Your task to perform on an android device: make emails show in primary in the gmail app Image 0: 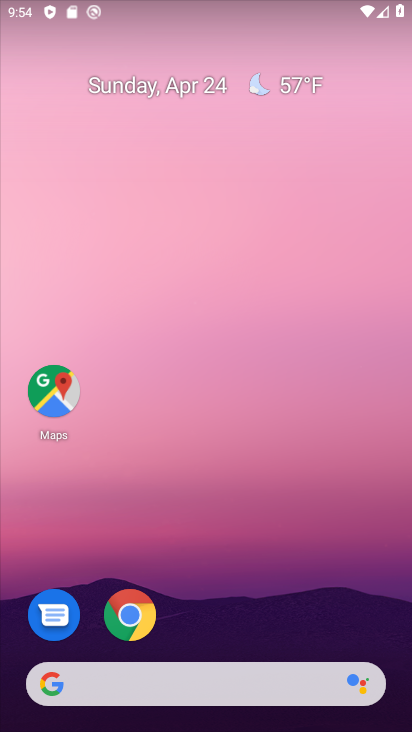
Step 0: drag from (350, 598) to (289, 134)
Your task to perform on an android device: make emails show in primary in the gmail app Image 1: 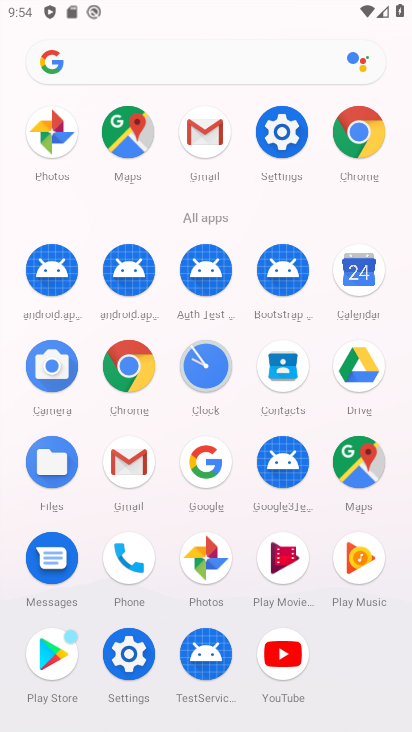
Step 1: click (128, 463)
Your task to perform on an android device: make emails show in primary in the gmail app Image 2: 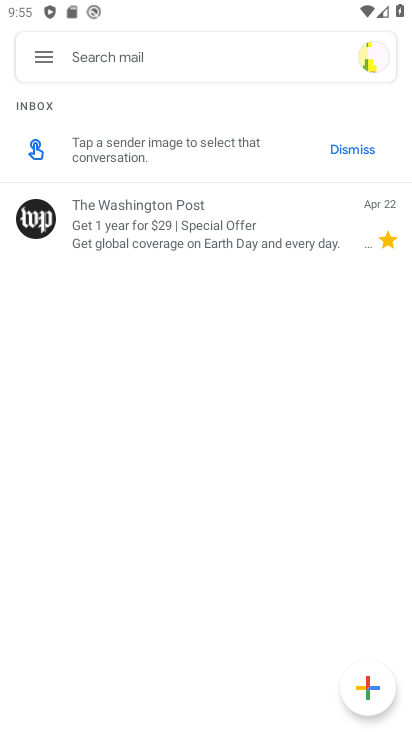
Step 2: click (43, 54)
Your task to perform on an android device: make emails show in primary in the gmail app Image 3: 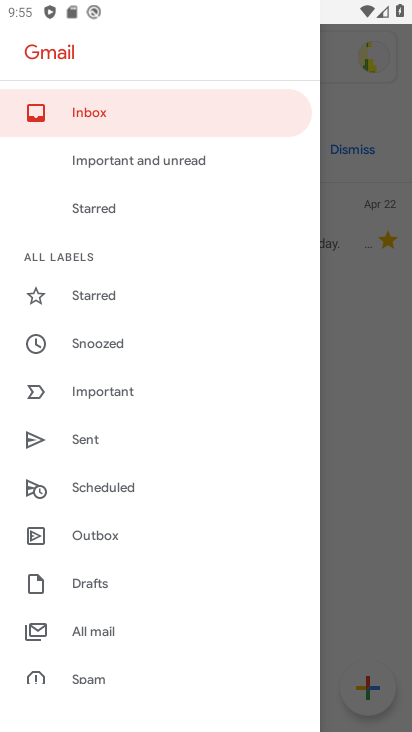
Step 3: drag from (204, 598) to (211, 264)
Your task to perform on an android device: make emails show in primary in the gmail app Image 4: 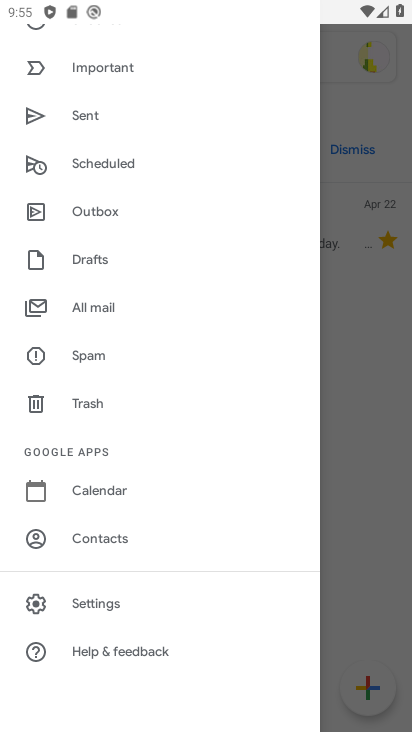
Step 4: click (93, 593)
Your task to perform on an android device: make emails show in primary in the gmail app Image 5: 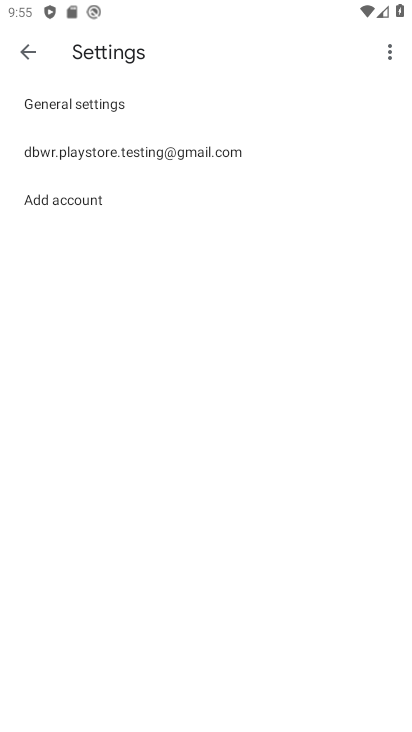
Step 5: click (131, 147)
Your task to perform on an android device: make emails show in primary in the gmail app Image 6: 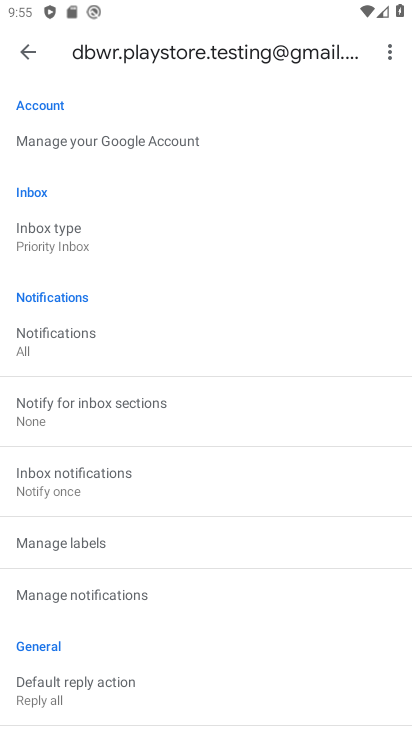
Step 6: click (56, 242)
Your task to perform on an android device: make emails show in primary in the gmail app Image 7: 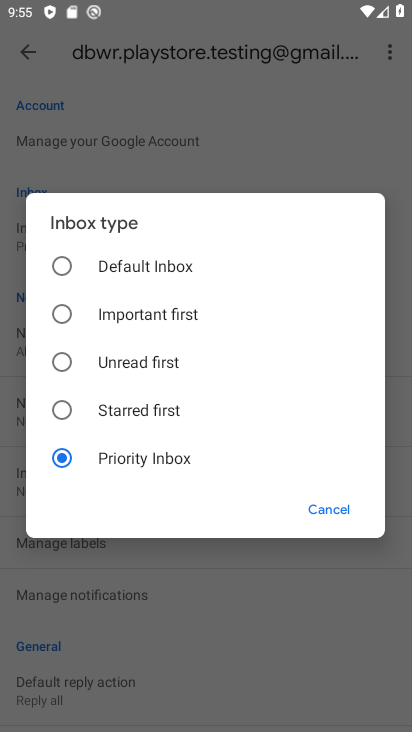
Step 7: click (60, 261)
Your task to perform on an android device: make emails show in primary in the gmail app Image 8: 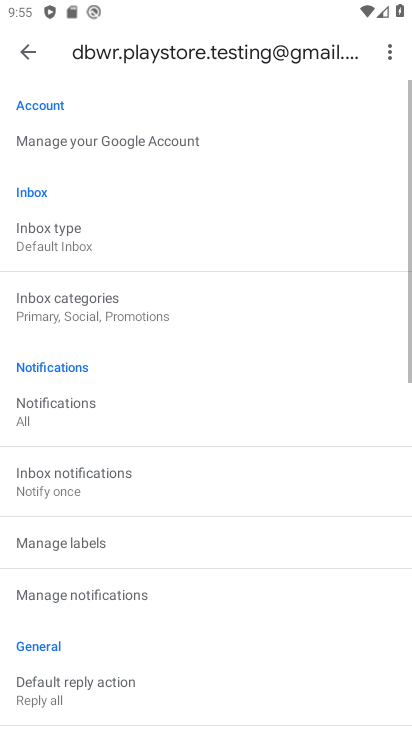
Step 8: click (59, 294)
Your task to perform on an android device: make emails show in primary in the gmail app Image 9: 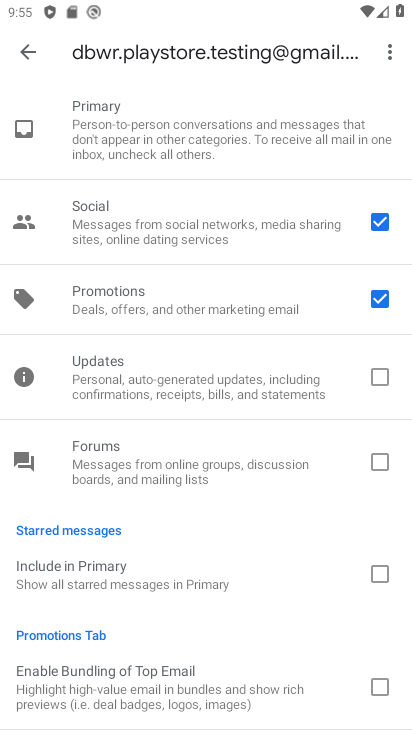
Step 9: click (383, 286)
Your task to perform on an android device: make emails show in primary in the gmail app Image 10: 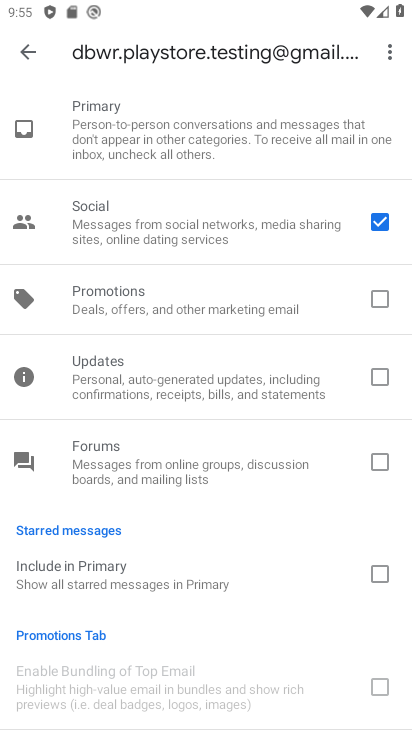
Step 10: click (383, 219)
Your task to perform on an android device: make emails show in primary in the gmail app Image 11: 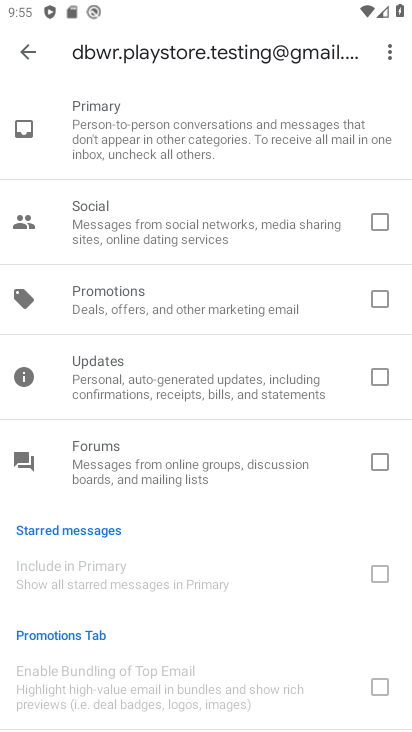
Step 11: task complete